Your task to perform on an android device: Open network settings Image 0: 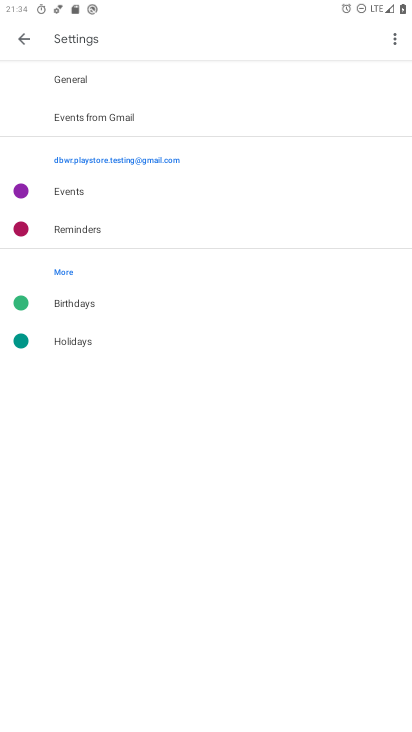
Step 0: drag from (221, 602) to (241, 345)
Your task to perform on an android device: Open network settings Image 1: 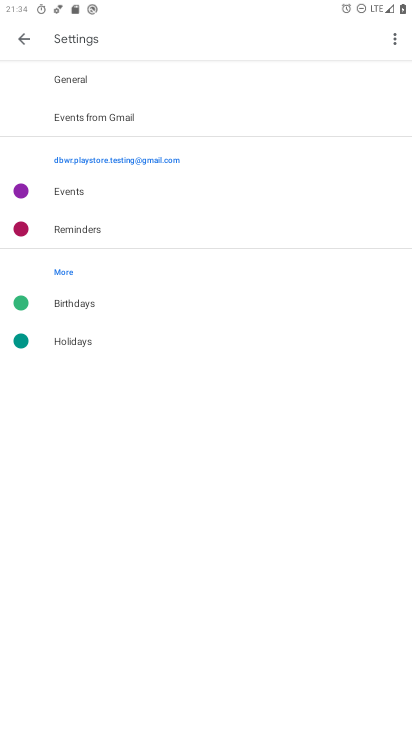
Step 1: drag from (224, 534) to (272, 373)
Your task to perform on an android device: Open network settings Image 2: 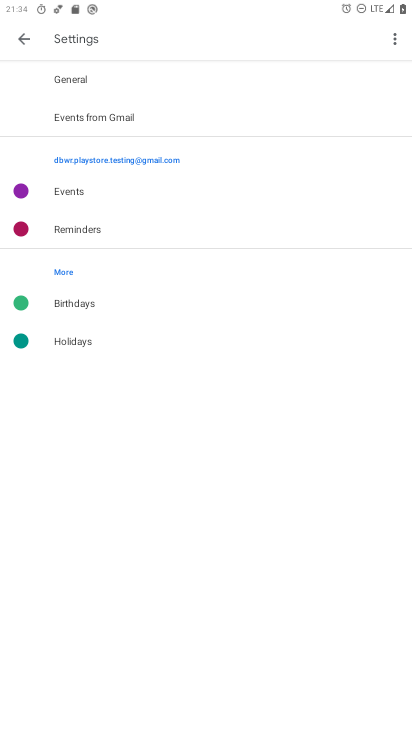
Step 2: drag from (268, 648) to (241, 280)
Your task to perform on an android device: Open network settings Image 3: 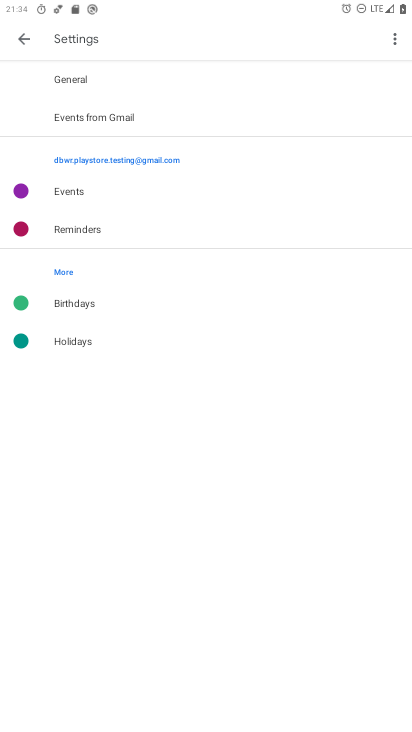
Step 3: drag from (108, 127) to (262, 718)
Your task to perform on an android device: Open network settings Image 4: 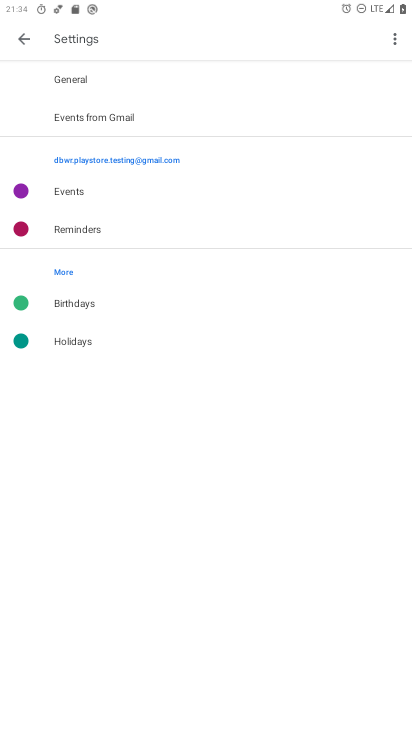
Step 4: press home button
Your task to perform on an android device: Open network settings Image 5: 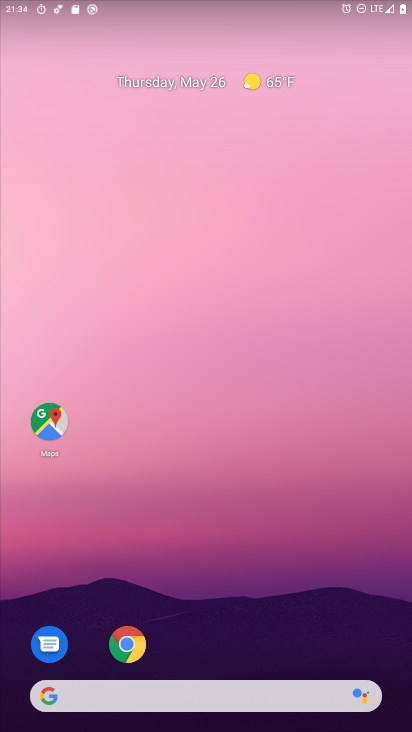
Step 5: drag from (199, 648) to (264, 139)
Your task to perform on an android device: Open network settings Image 6: 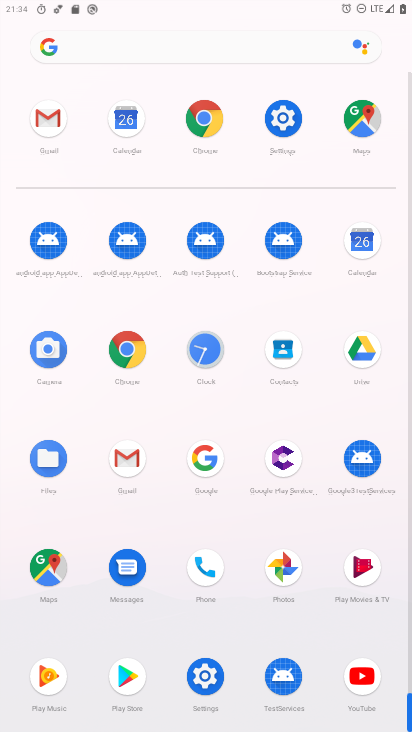
Step 6: click (199, 677)
Your task to perform on an android device: Open network settings Image 7: 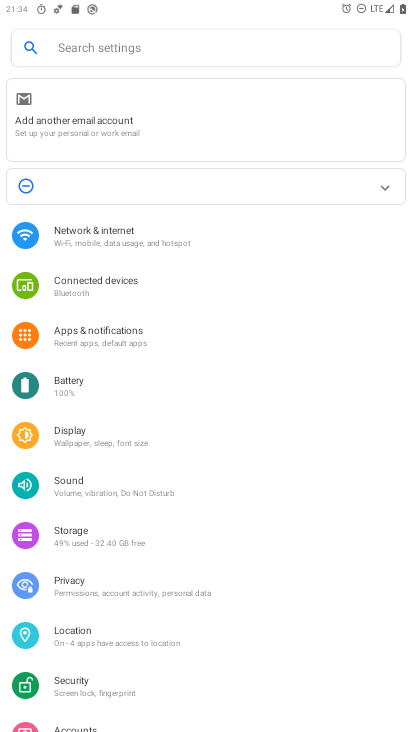
Step 7: click (132, 236)
Your task to perform on an android device: Open network settings Image 8: 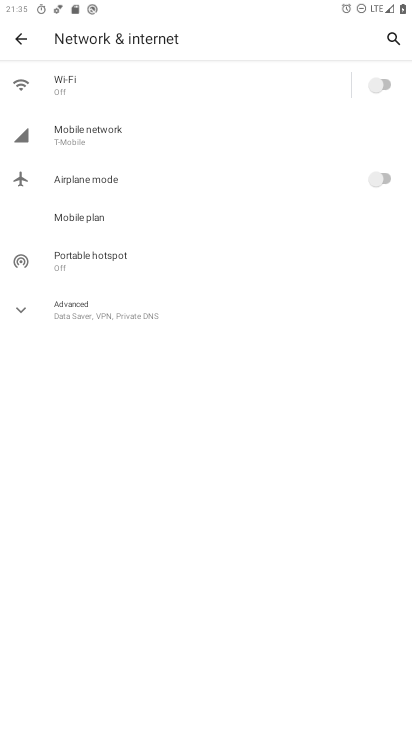
Step 8: click (129, 142)
Your task to perform on an android device: Open network settings Image 9: 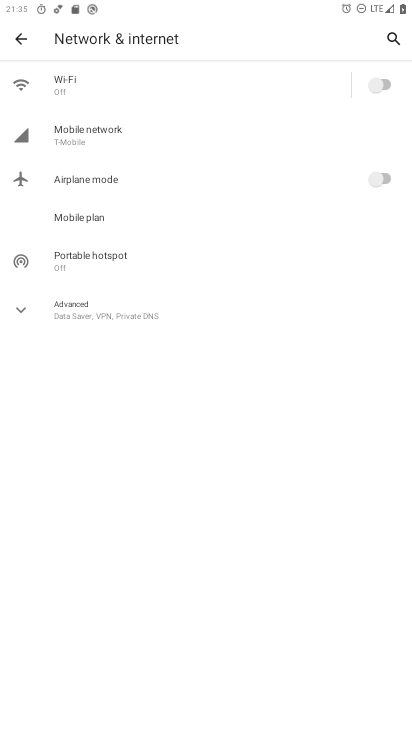
Step 9: task complete